Your task to perform on an android device: Open Google Chrome Image 0: 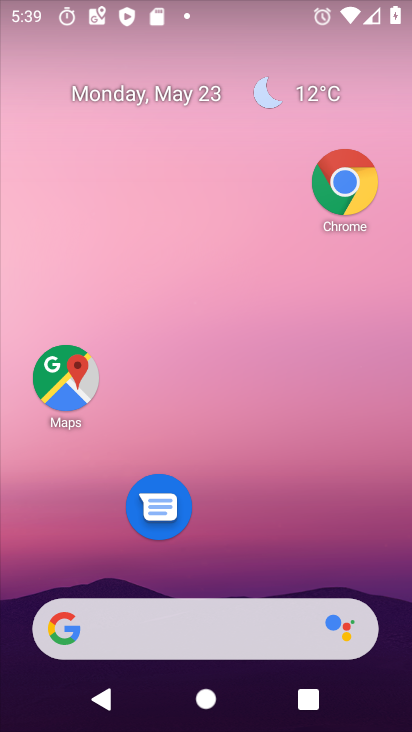
Step 0: click (335, 189)
Your task to perform on an android device: Open Google Chrome Image 1: 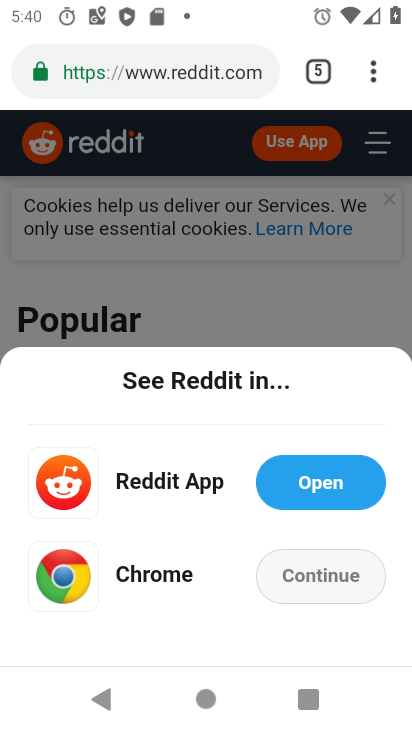
Step 1: task complete